Your task to perform on an android device: Open Chrome and go to settings Image 0: 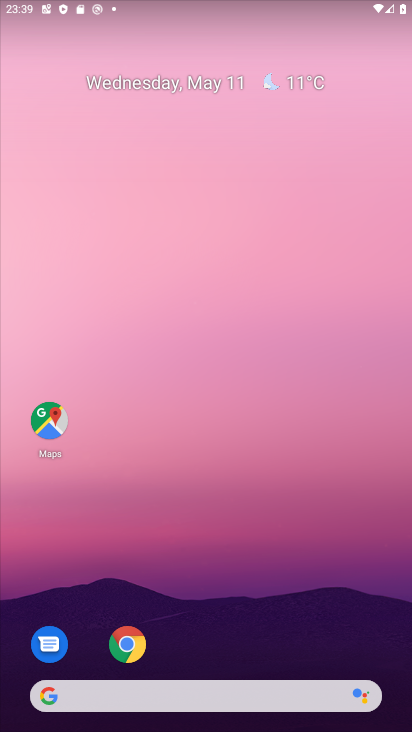
Step 0: click (124, 641)
Your task to perform on an android device: Open Chrome and go to settings Image 1: 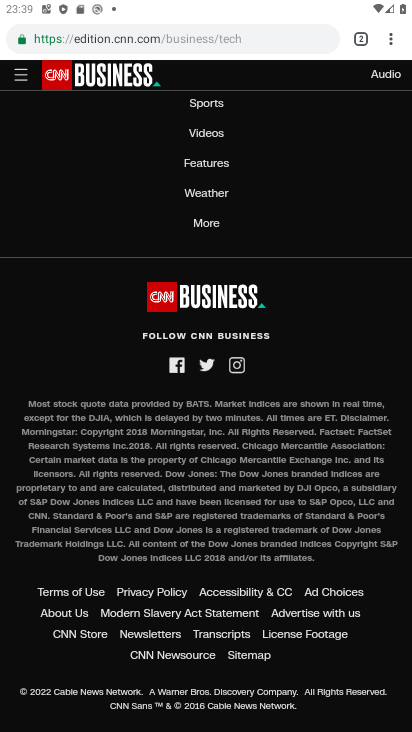
Step 1: click (390, 37)
Your task to perform on an android device: Open Chrome and go to settings Image 2: 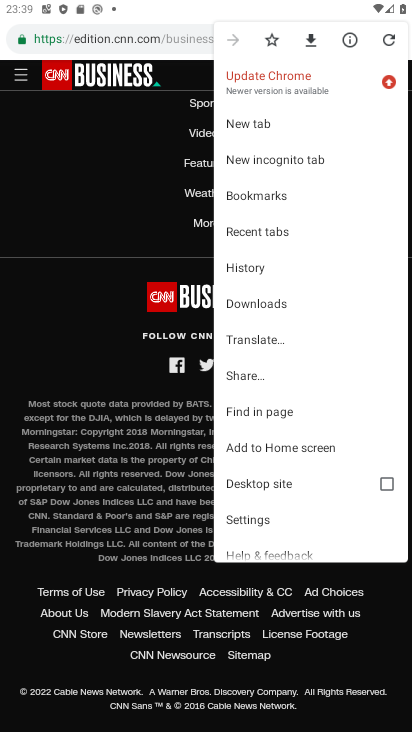
Step 2: click (277, 518)
Your task to perform on an android device: Open Chrome and go to settings Image 3: 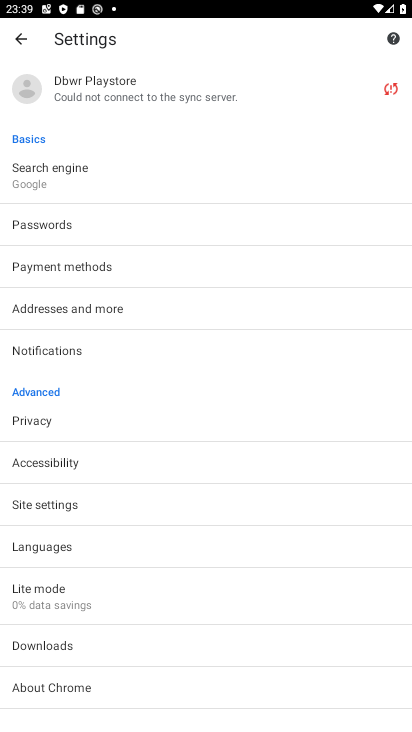
Step 3: task complete